Your task to perform on an android device: Search for Mexican restaurants on Maps Image 0: 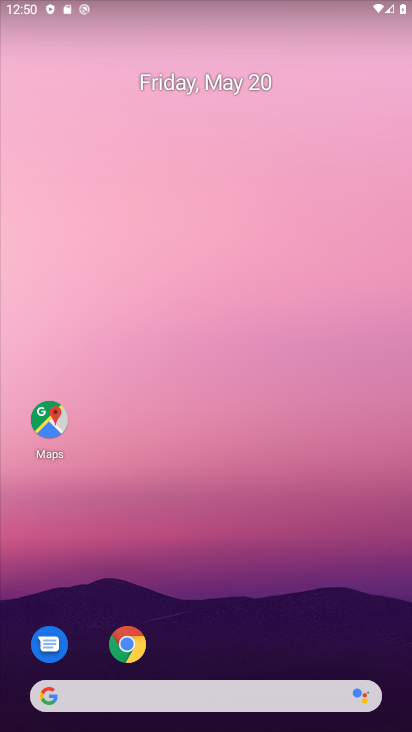
Step 0: drag from (301, 520) to (273, 111)
Your task to perform on an android device: Search for Mexican restaurants on Maps Image 1: 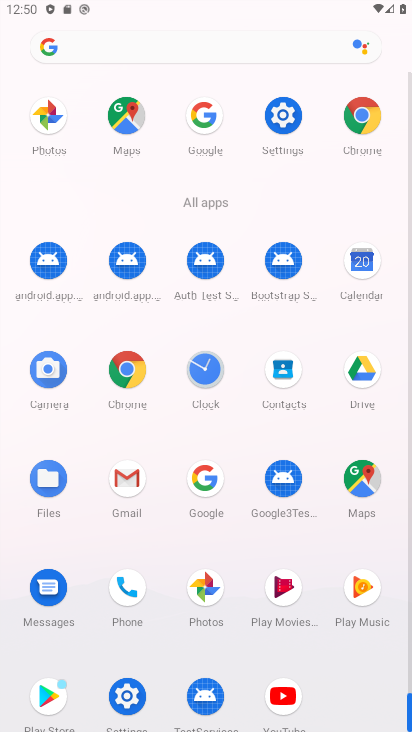
Step 1: click (123, 120)
Your task to perform on an android device: Search for Mexican restaurants on Maps Image 2: 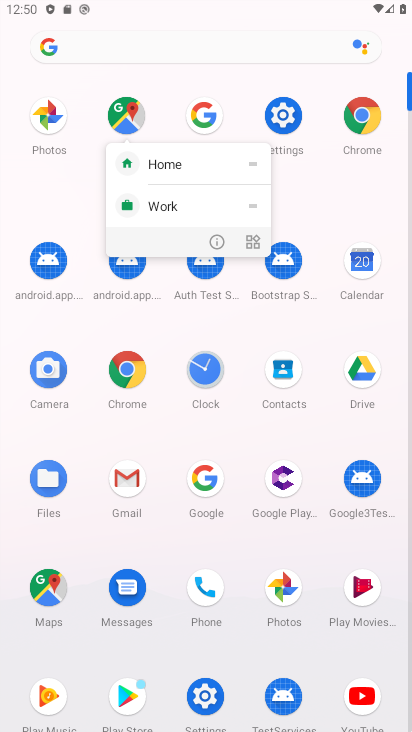
Step 2: click (123, 119)
Your task to perform on an android device: Search for Mexican restaurants on Maps Image 3: 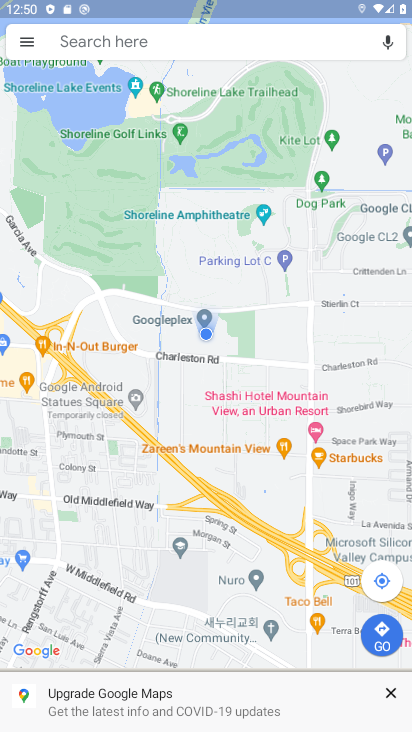
Step 3: click (213, 45)
Your task to perform on an android device: Search for Mexican restaurants on Maps Image 4: 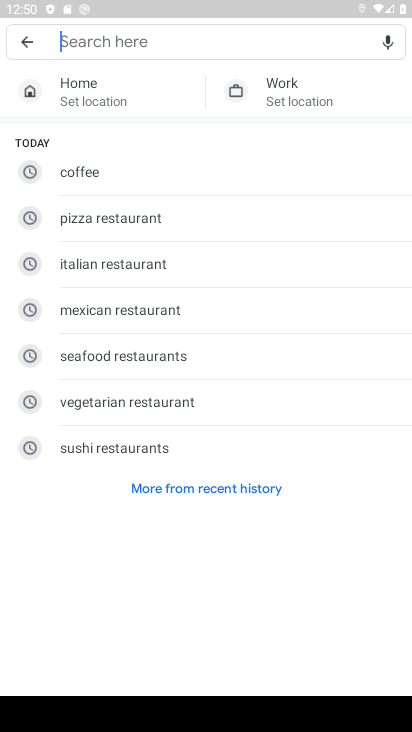
Step 4: click (121, 310)
Your task to perform on an android device: Search for Mexican restaurants on Maps Image 5: 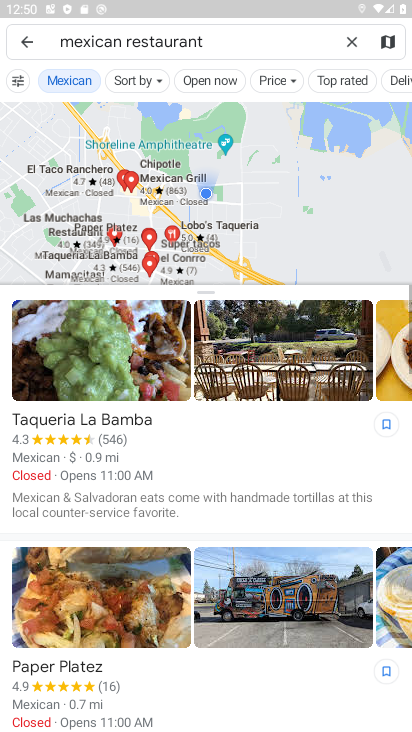
Step 5: task complete